Your task to perform on an android device: Turn on the flashlight Image 0: 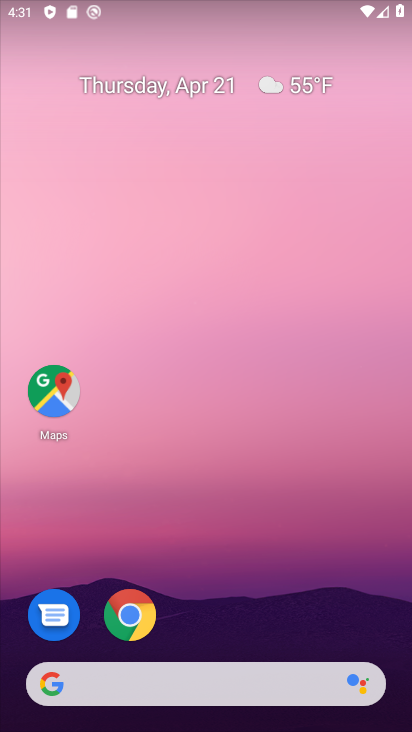
Step 0: drag from (207, 628) to (241, 120)
Your task to perform on an android device: Turn on the flashlight Image 1: 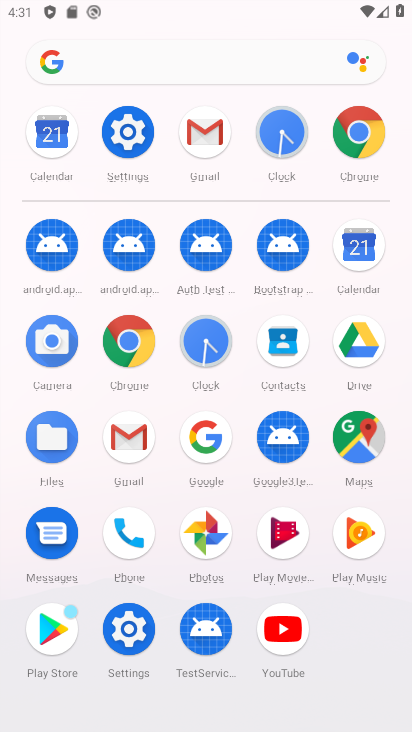
Step 1: click (123, 140)
Your task to perform on an android device: Turn on the flashlight Image 2: 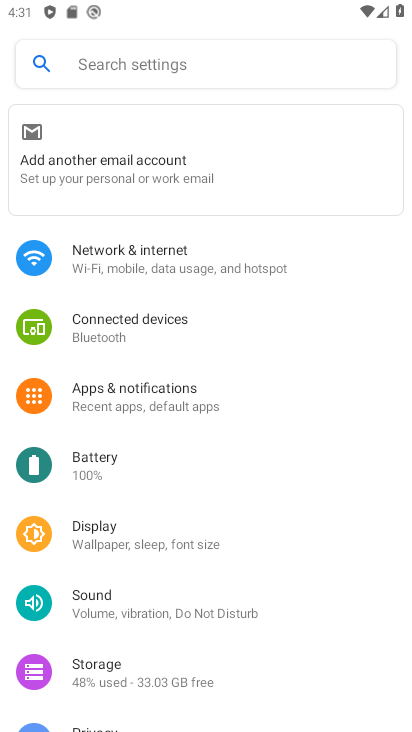
Step 2: task complete